Your task to perform on an android device: Open the map Image 0: 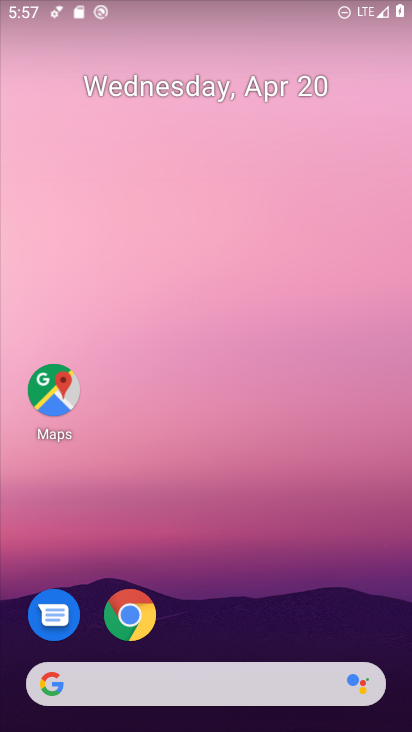
Step 0: click (141, 499)
Your task to perform on an android device: Open the map Image 1: 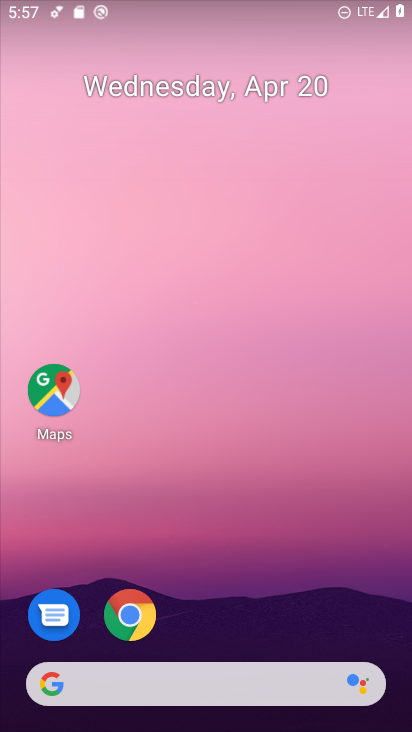
Step 1: click (50, 398)
Your task to perform on an android device: Open the map Image 2: 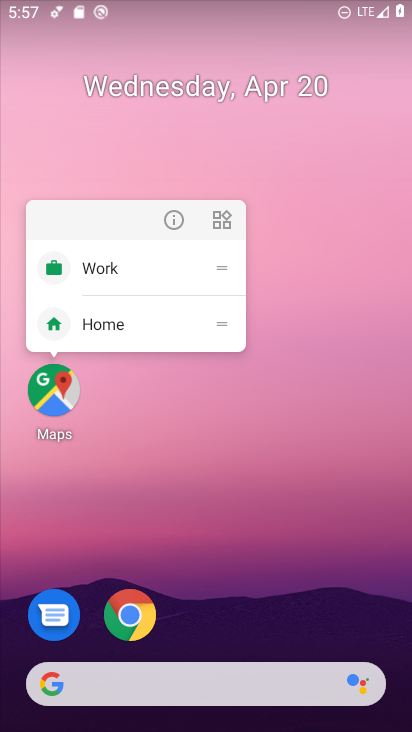
Step 2: click (64, 385)
Your task to perform on an android device: Open the map Image 3: 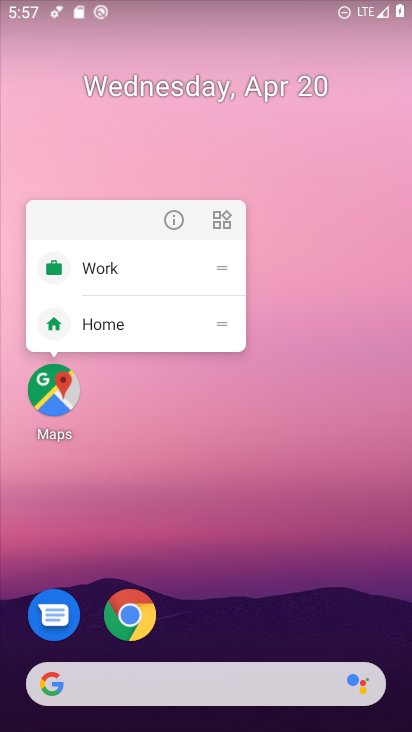
Step 3: click (55, 389)
Your task to perform on an android device: Open the map Image 4: 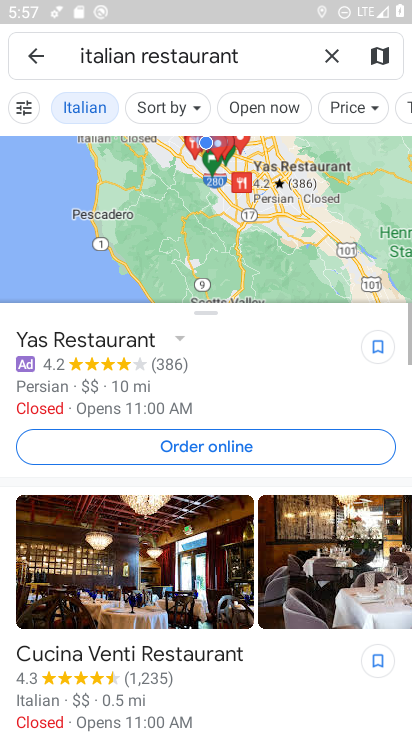
Step 4: task complete